Your task to perform on an android device: turn on improve location accuracy Image 0: 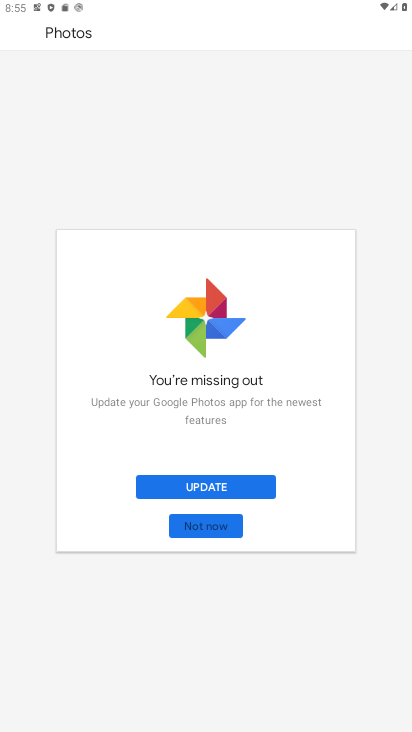
Step 0: press home button
Your task to perform on an android device: turn on improve location accuracy Image 1: 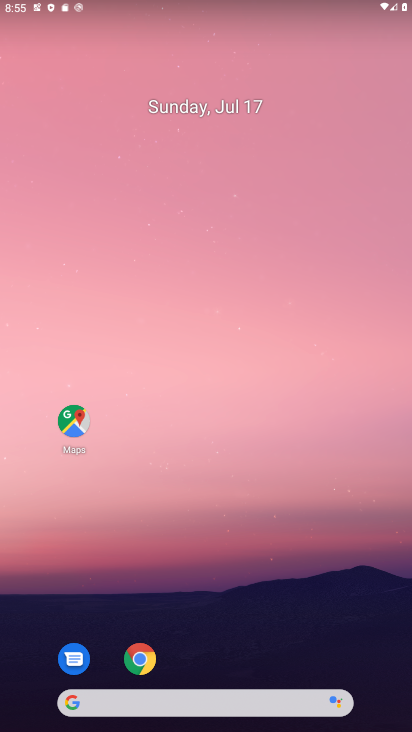
Step 1: drag from (208, 642) to (208, 204)
Your task to perform on an android device: turn on improve location accuracy Image 2: 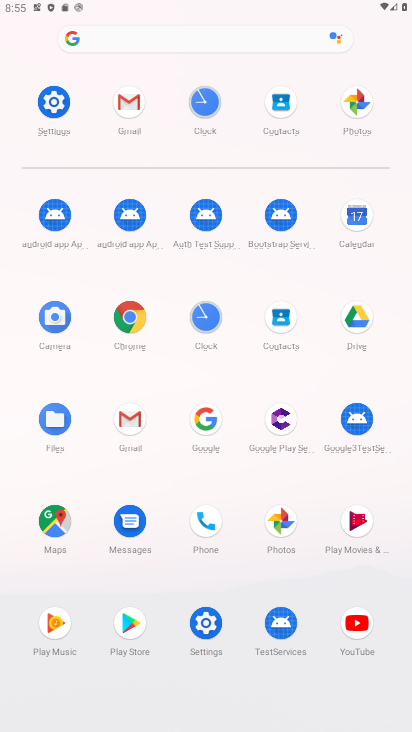
Step 2: click (59, 114)
Your task to perform on an android device: turn on improve location accuracy Image 3: 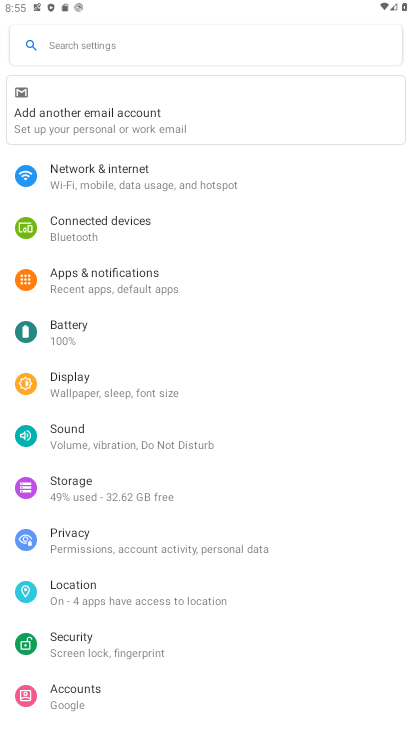
Step 3: click (93, 582)
Your task to perform on an android device: turn on improve location accuracy Image 4: 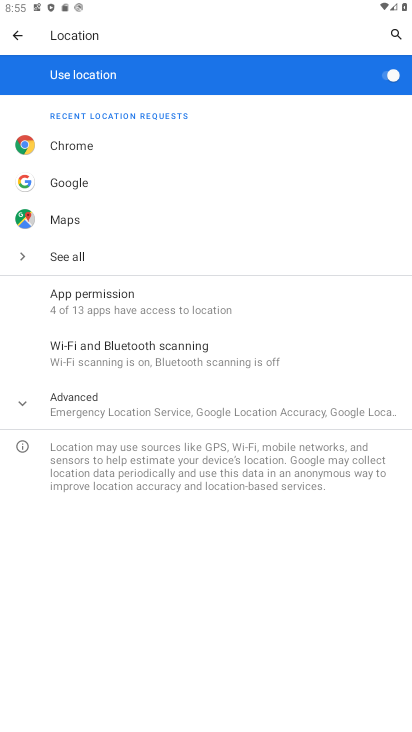
Step 4: click (190, 409)
Your task to perform on an android device: turn on improve location accuracy Image 5: 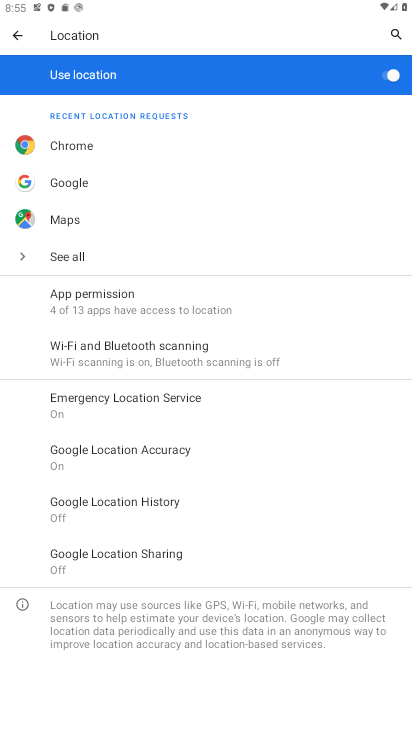
Step 5: click (211, 450)
Your task to perform on an android device: turn on improve location accuracy Image 6: 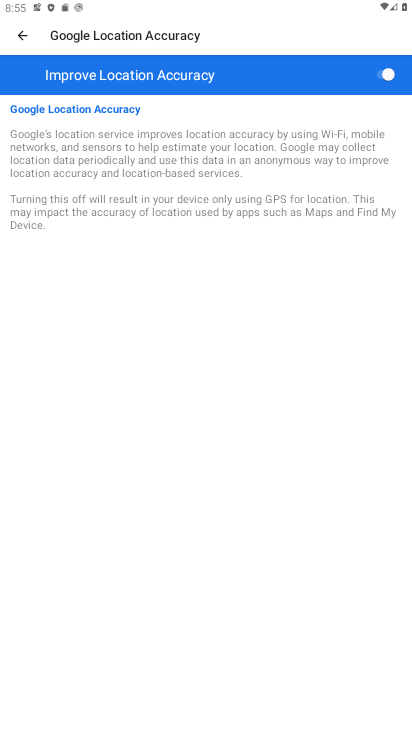
Step 6: task complete